Your task to perform on an android device: Open calendar and show me the third week of next month Image 0: 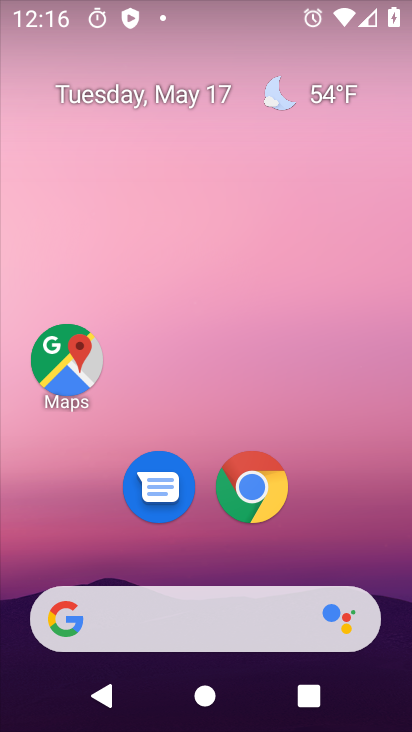
Step 0: drag from (205, 551) to (245, 33)
Your task to perform on an android device: Open calendar and show me the third week of next month Image 1: 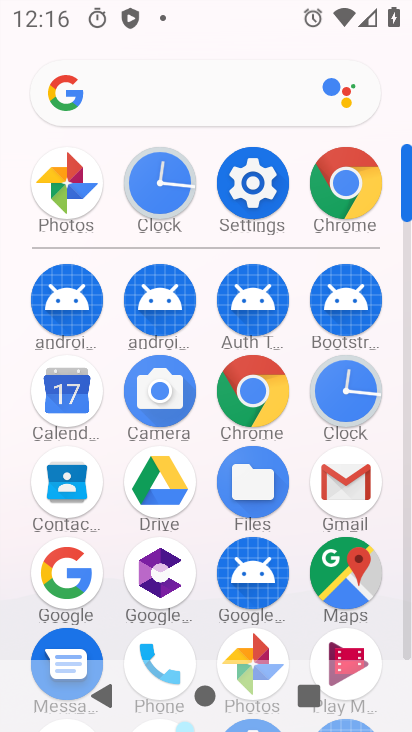
Step 1: click (75, 397)
Your task to perform on an android device: Open calendar and show me the third week of next month Image 2: 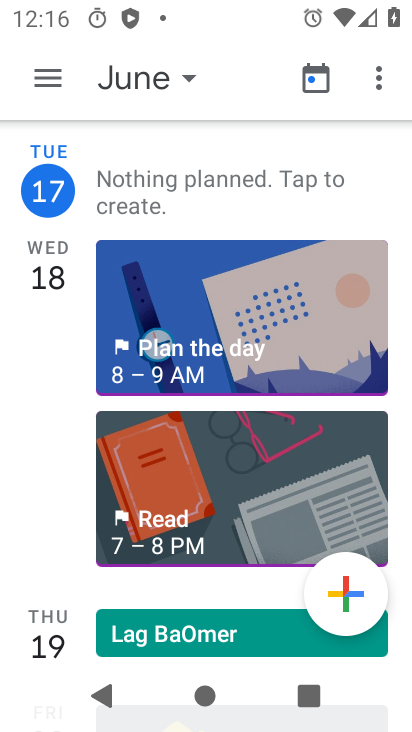
Step 2: click (45, 75)
Your task to perform on an android device: Open calendar and show me the third week of next month Image 3: 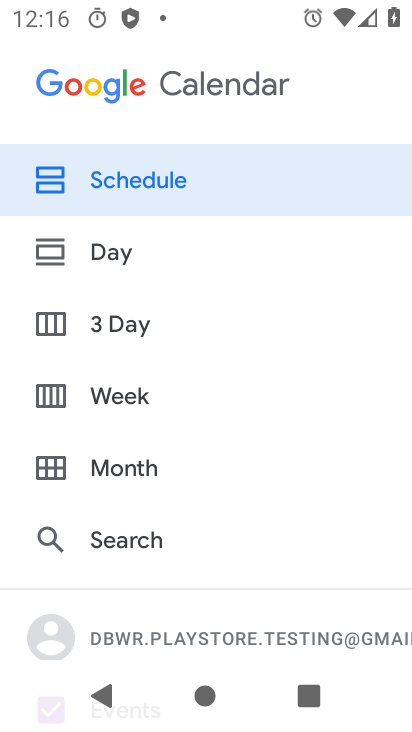
Step 3: click (86, 172)
Your task to perform on an android device: Open calendar and show me the third week of next month Image 4: 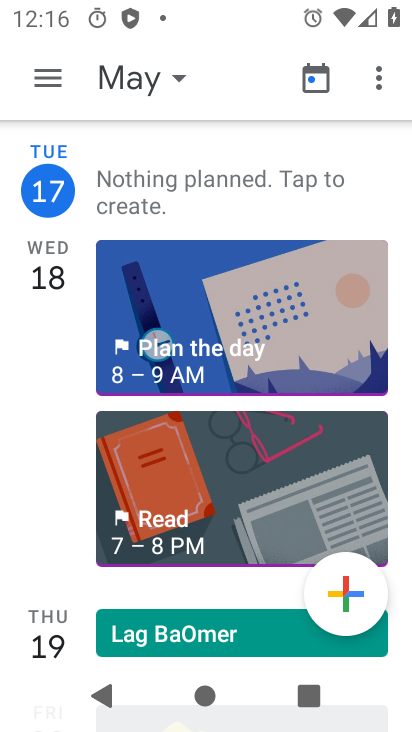
Step 4: click (166, 81)
Your task to perform on an android device: Open calendar and show me the third week of next month Image 5: 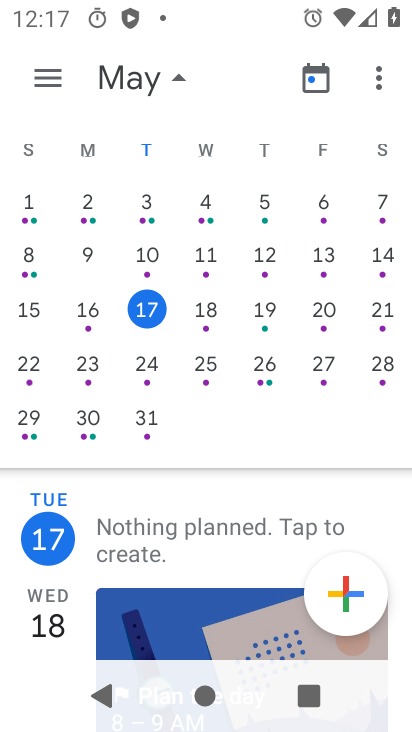
Step 5: drag from (365, 303) to (29, 255)
Your task to perform on an android device: Open calendar and show me the third week of next month Image 6: 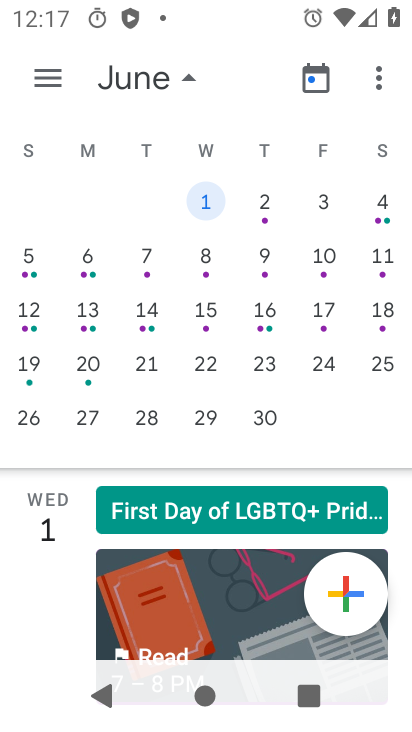
Step 6: click (90, 305)
Your task to perform on an android device: Open calendar and show me the third week of next month Image 7: 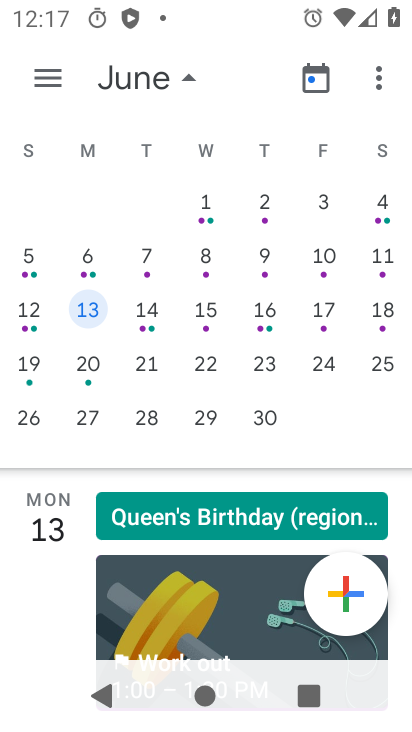
Step 7: task complete